Your task to perform on an android device: open chrome and create a bookmark for the current page Image 0: 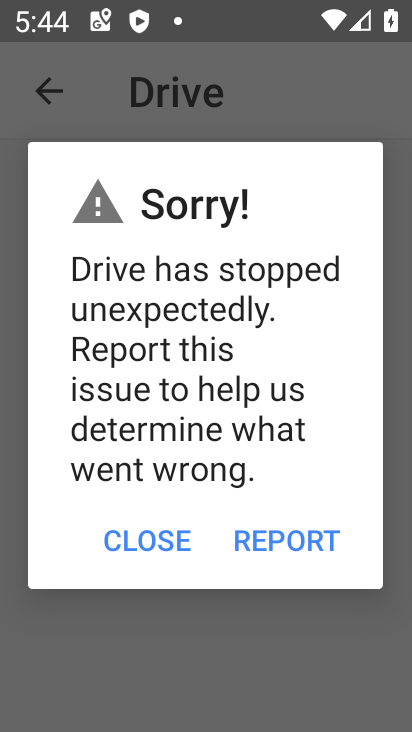
Step 0: press home button
Your task to perform on an android device: open chrome and create a bookmark for the current page Image 1: 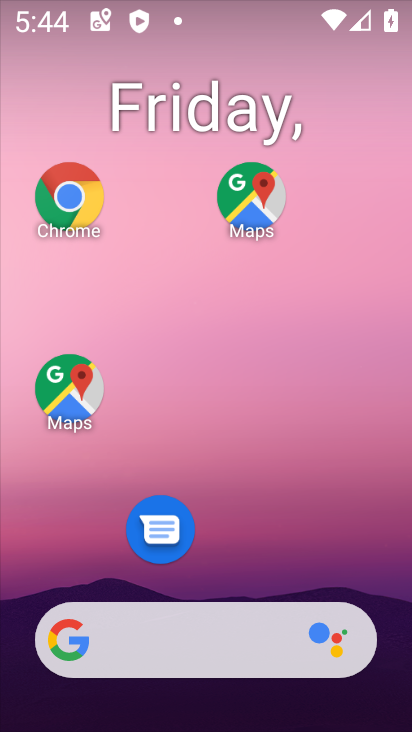
Step 1: click (72, 214)
Your task to perform on an android device: open chrome and create a bookmark for the current page Image 2: 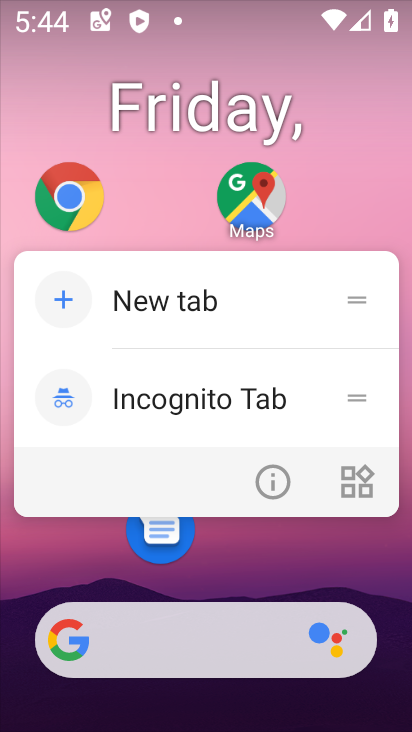
Step 2: click (61, 186)
Your task to perform on an android device: open chrome and create a bookmark for the current page Image 3: 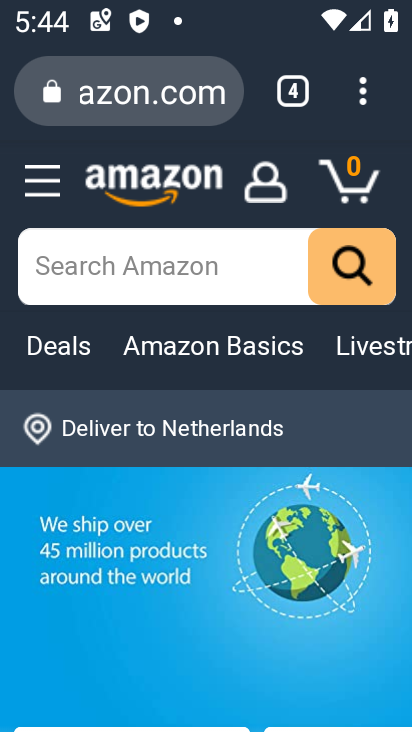
Step 3: click (362, 89)
Your task to perform on an android device: open chrome and create a bookmark for the current page Image 4: 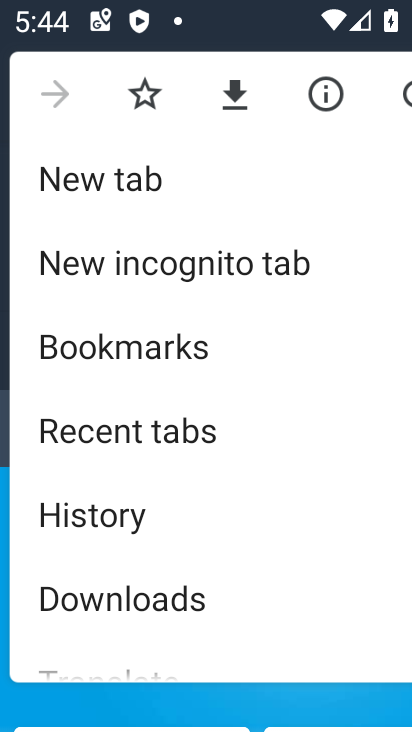
Step 4: click (158, 353)
Your task to perform on an android device: open chrome and create a bookmark for the current page Image 5: 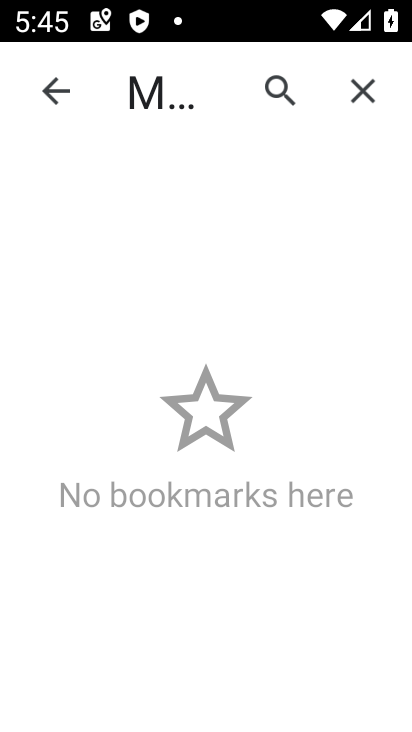
Step 5: task complete